Your task to perform on an android device: Open Youtube and go to the subscriptions tab Image 0: 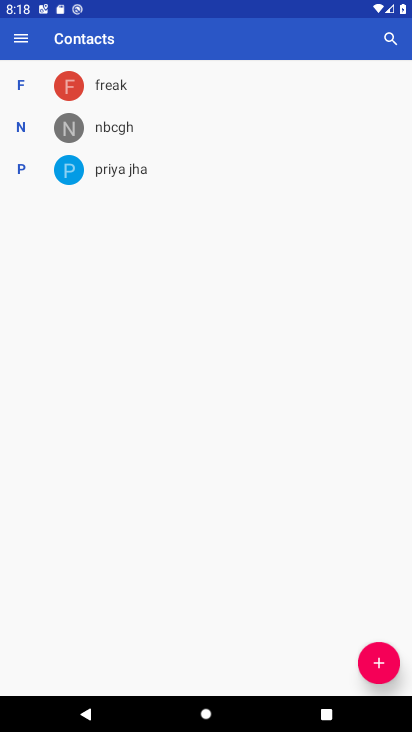
Step 0: press home button
Your task to perform on an android device: Open Youtube and go to the subscriptions tab Image 1: 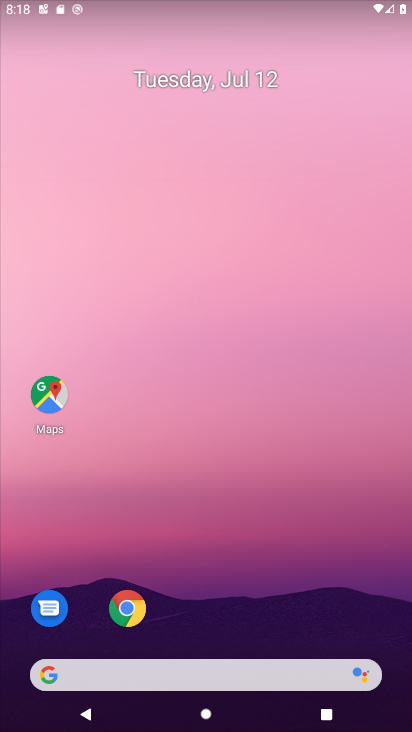
Step 1: drag from (201, 664) to (337, 143)
Your task to perform on an android device: Open Youtube and go to the subscriptions tab Image 2: 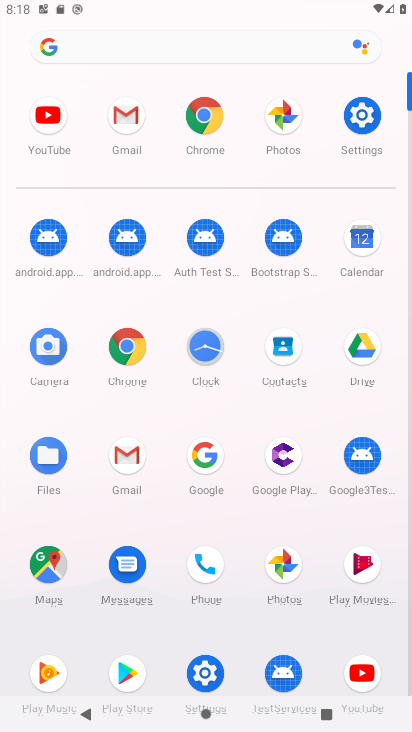
Step 2: click (358, 679)
Your task to perform on an android device: Open Youtube and go to the subscriptions tab Image 3: 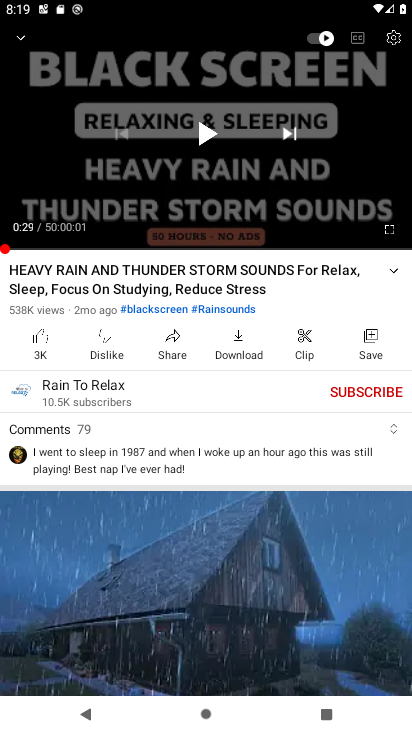
Step 3: press back button
Your task to perform on an android device: Open Youtube and go to the subscriptions tab Image 4: 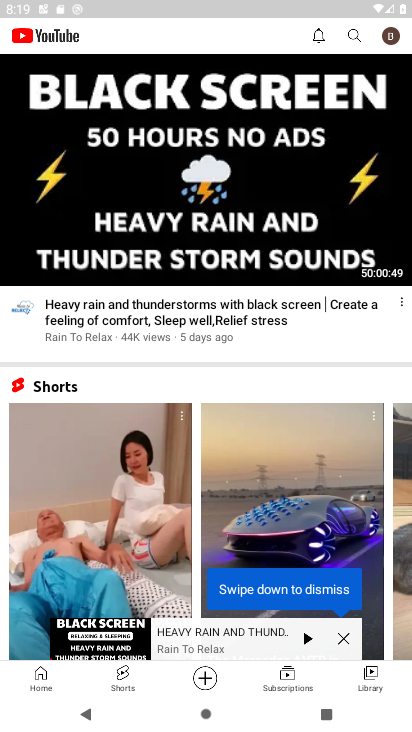
Step 4: click (283, 687)
Your task to perform on an android device: Open Youtube and go to the subscriptions tab Image 5: 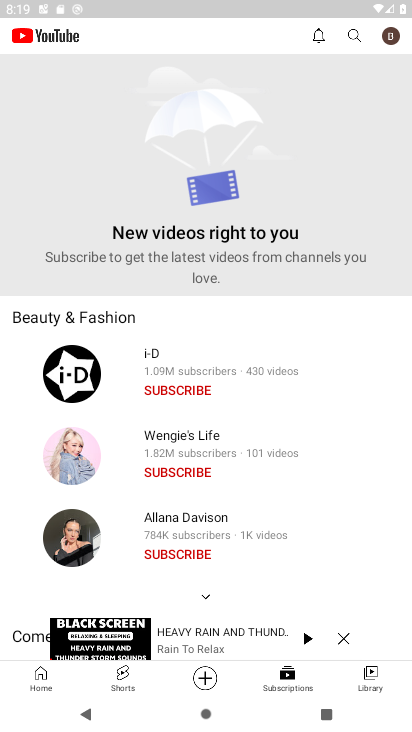
Step 5: task complete